Your task to perform on an android device: check battery use Image 0: 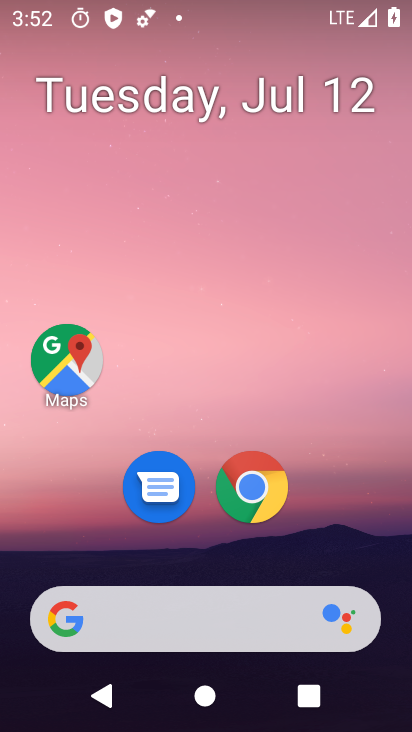
Step 0: drag from (298, 638) to (326, 77)
Your task to perform on an android device: check battery use Image 1: 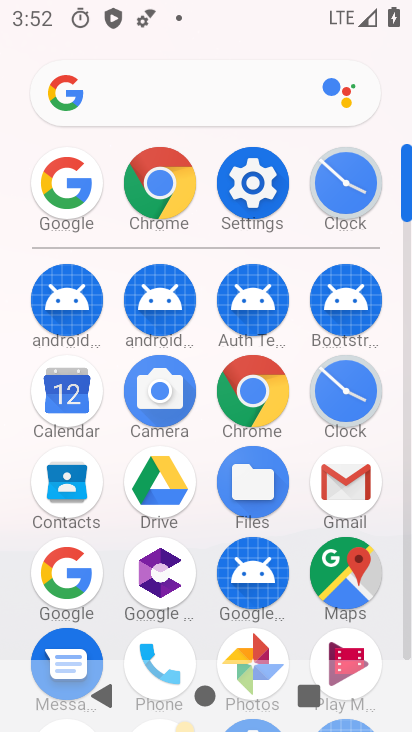
Step 1: click (249, 195)
Your task to perform on an android device: check battery use Image 2: 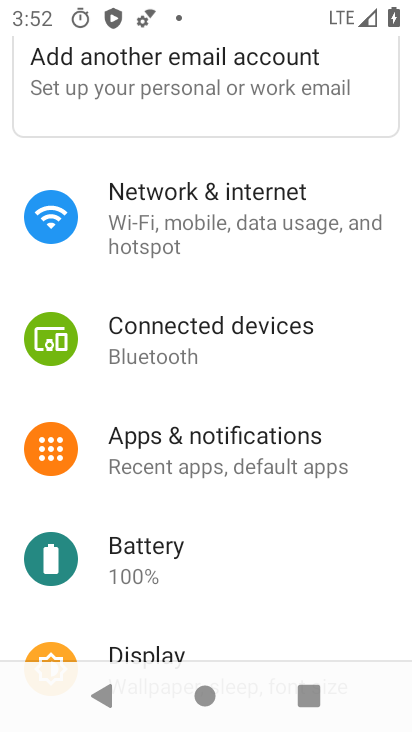
Step 2: drag from (207, 529) to (195, 308)
Your task to perform on an android device: check battery use Image 3: 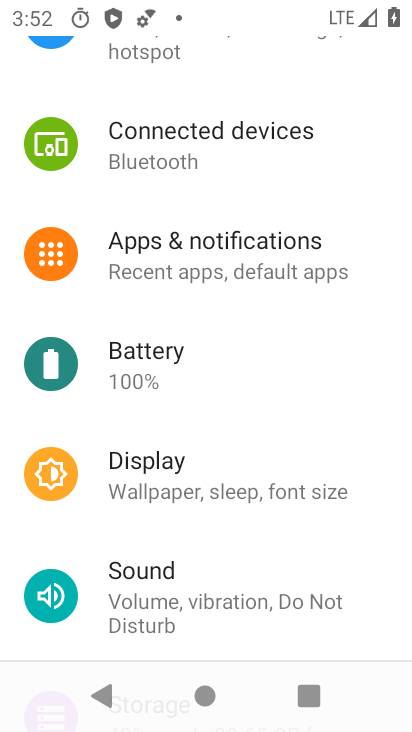
Step 3: click (184, 362)
Your task to perform on an android device: check battery use Image 4: 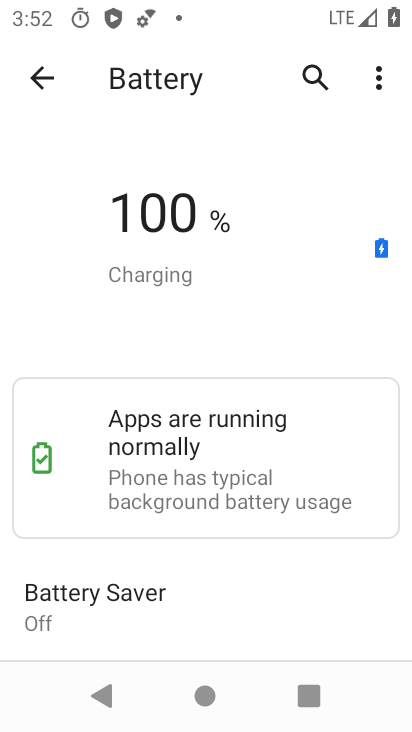
Step 4: drag from (204, 542) to (229, 396)
Your task to perform on an android device: check battery use Image 5: 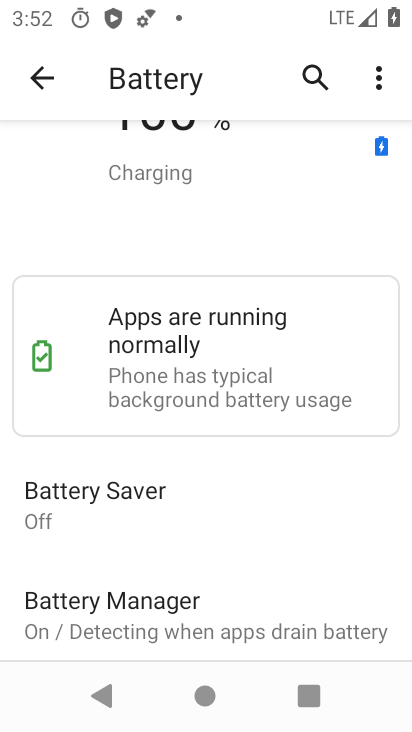
Step 5: click (213, 345)
Your task to perform on an android device: check battery use Image 6: 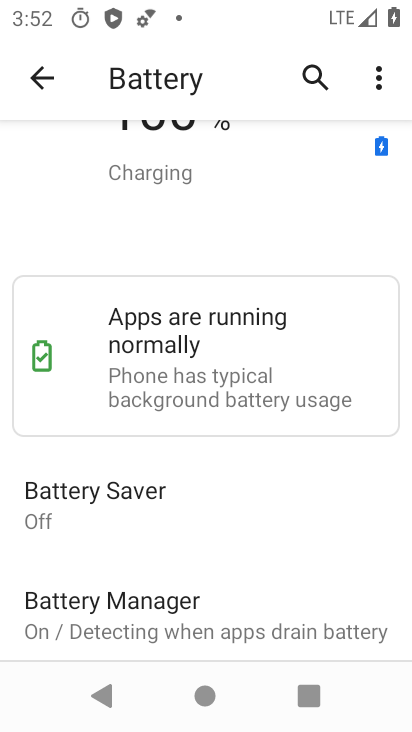
Step 6: task complete